Your task to perform on an android device: What's the weather? Image 0: 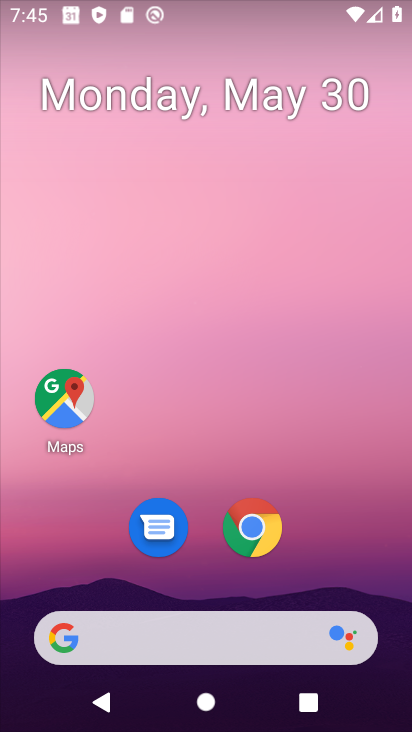
Step 0: click (224, 631)
Your task to perform on an android device: What's the weather? Image 1: 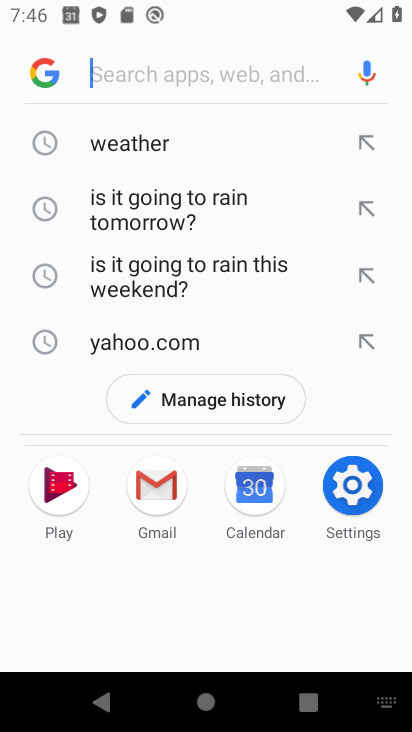
Step 1: type "what's the weather"
Your task to perform on an android device: What's the weather? Image 2: 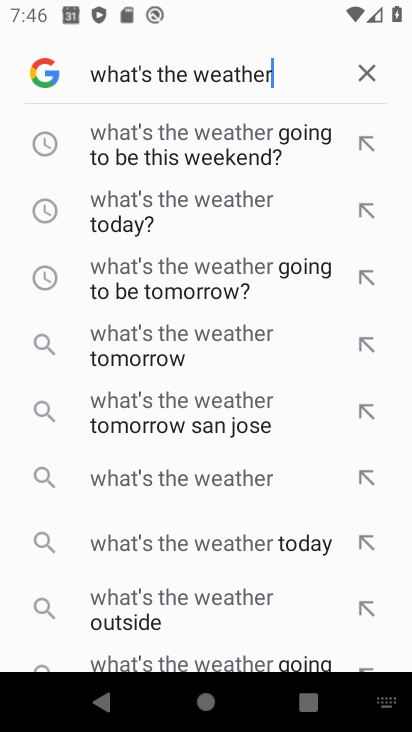
Step 2: click (149, 477)
Your task to perform on an android device: What's the weather? Image 3: 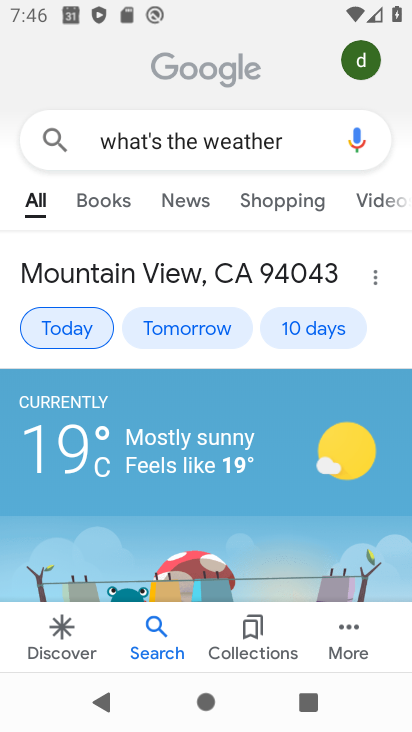
Step 3: task complete